Your task to perform on an android device: Go to Android settings Image 0: 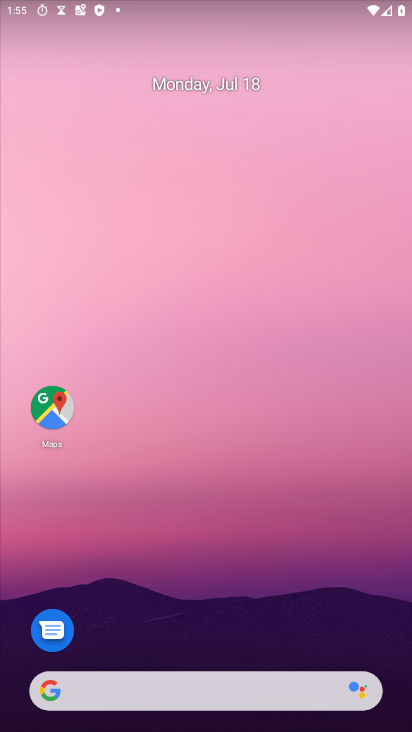
Step 0: drag from (297, 686) to (319, 0)
Your task to perform on an android device: Go to Android settings Image 1: 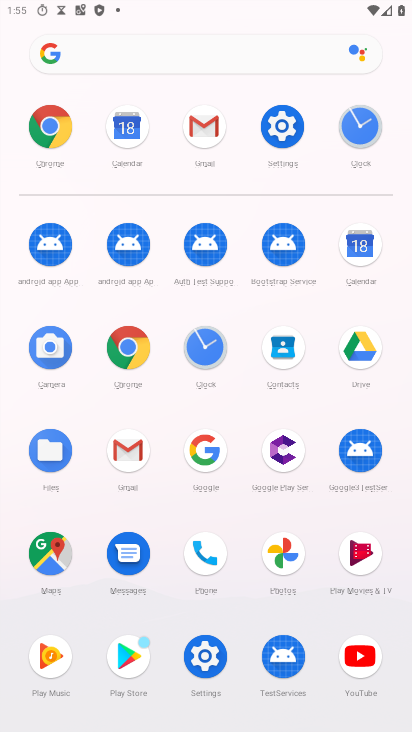
Step 1: click (275, 115)
Your task to perform on an android device: Go to Android settings Image 2: 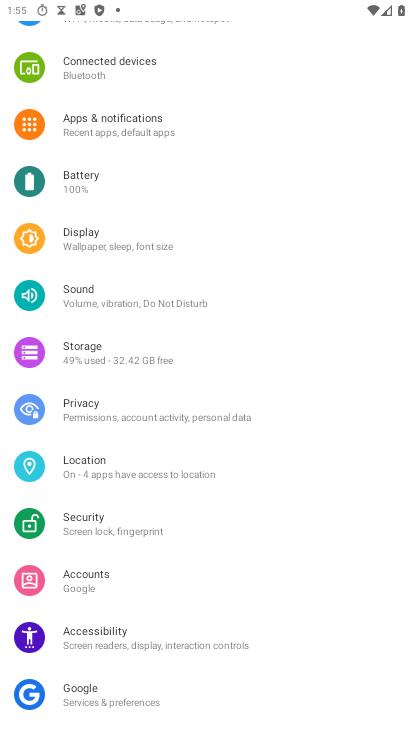
Step 2: drag from (184, 118) to (210, 601)
Your task to perform on an android device: Go to Android settings Image 3: 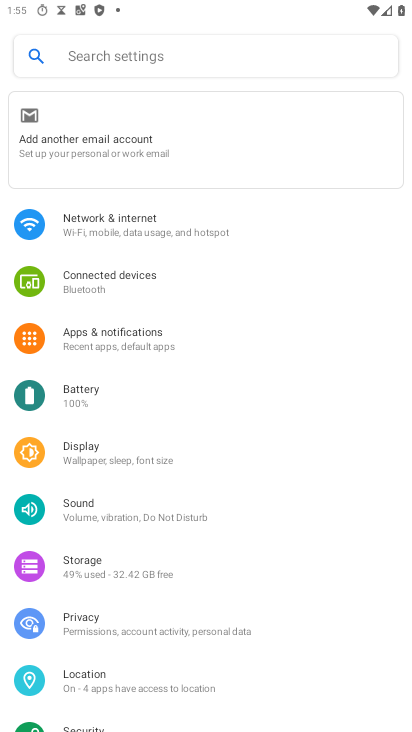
Step 3: drag from (193, 642) to (282, 126)
Your task to perform on an android device: Go to Android settings Image 4: 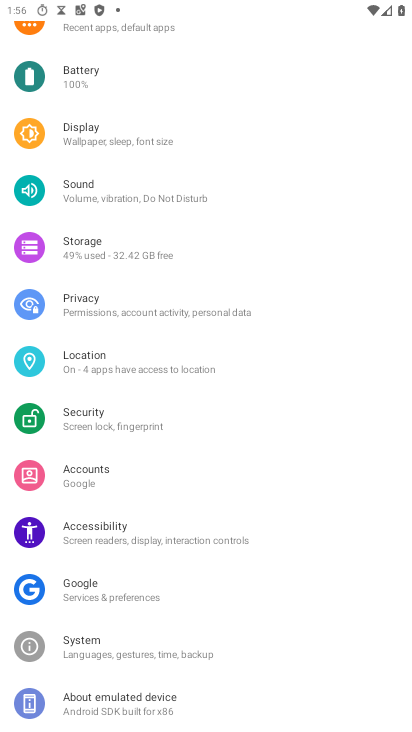
Step 4: click (231, 706)
Your task to perform on an android device: Go to Android settings Image 5: 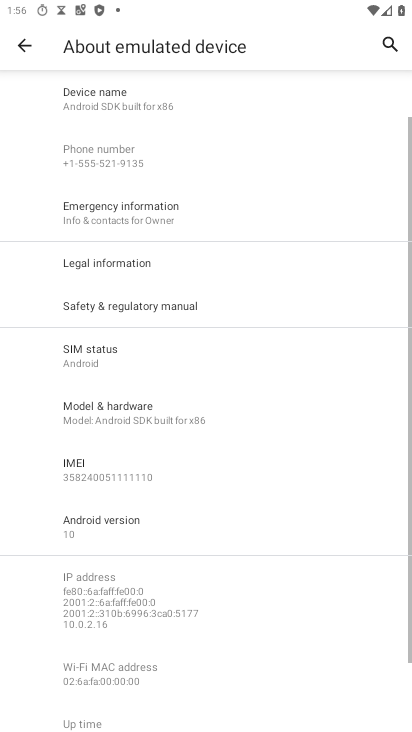
Step 5: task complete